Your task to perform on an android device: open app "The Home Depot" (install if not already installed), go to login, and select forgot password Image 0: 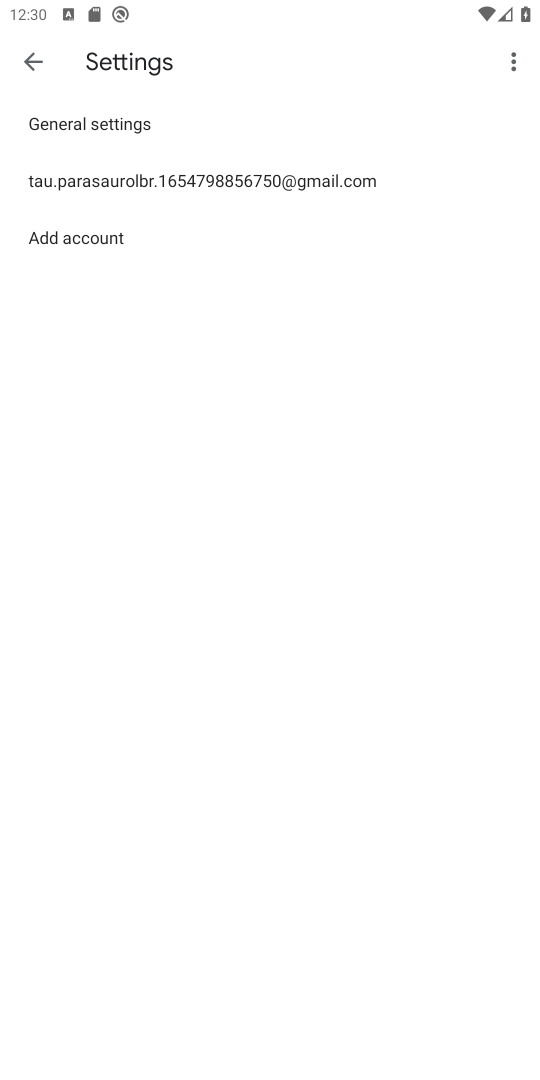
Step 0: press home button
Your task to perform on an android device: open app "The Home Depot" (install if not already installed), go to login, and select forgot password Image 1: 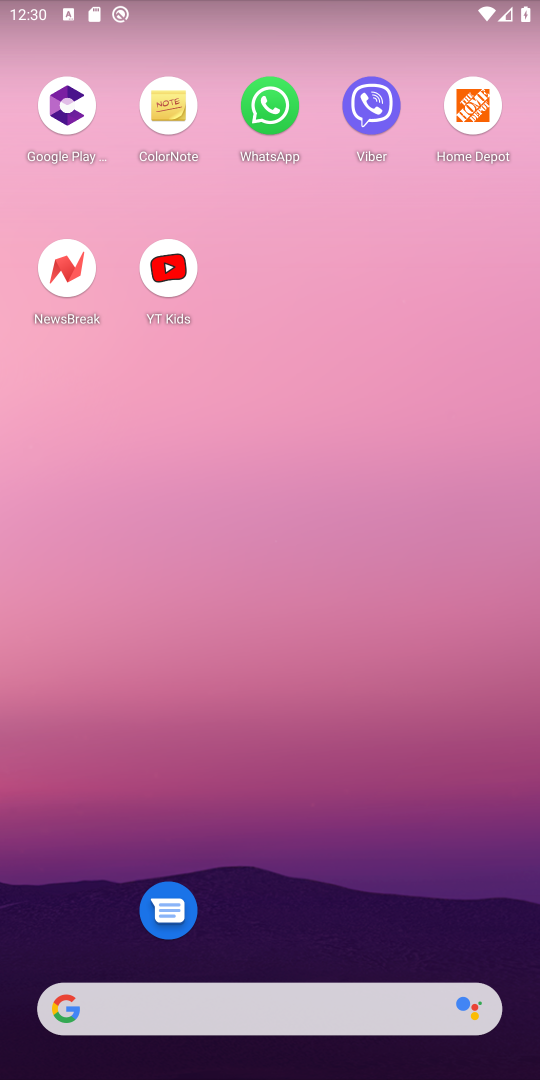
Step 1: drag from (188, 838) to (220, 92)
Your task to perform on an android device: open app "The Home Depot" (install if not already installed), go to login, and select forgot password Image 2: 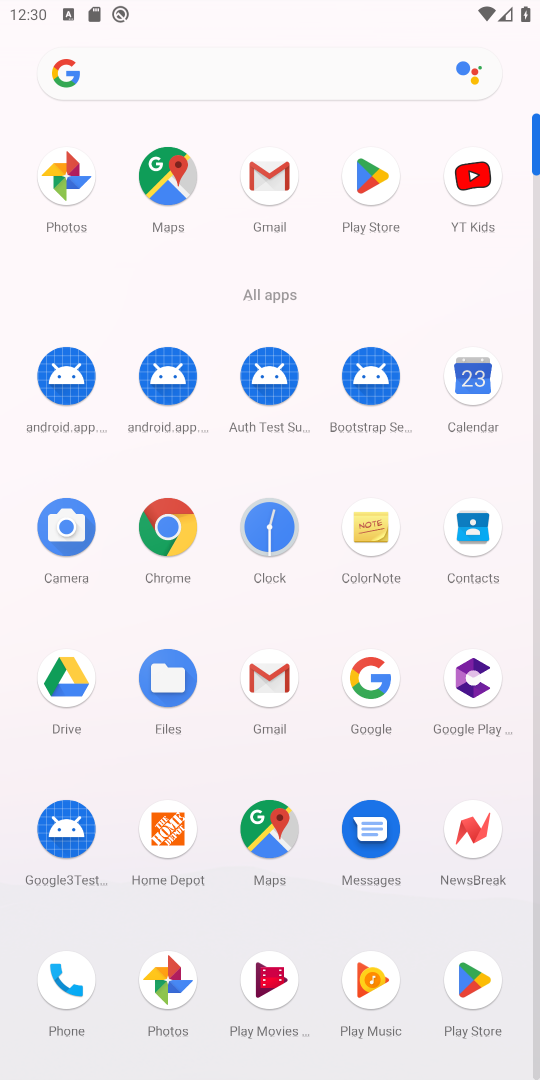
Step 2: click (375, 193)
Your task to perform on an android device: open app "The Home Depot" (install if not already installed), go to login, and select forgot password Image 3: 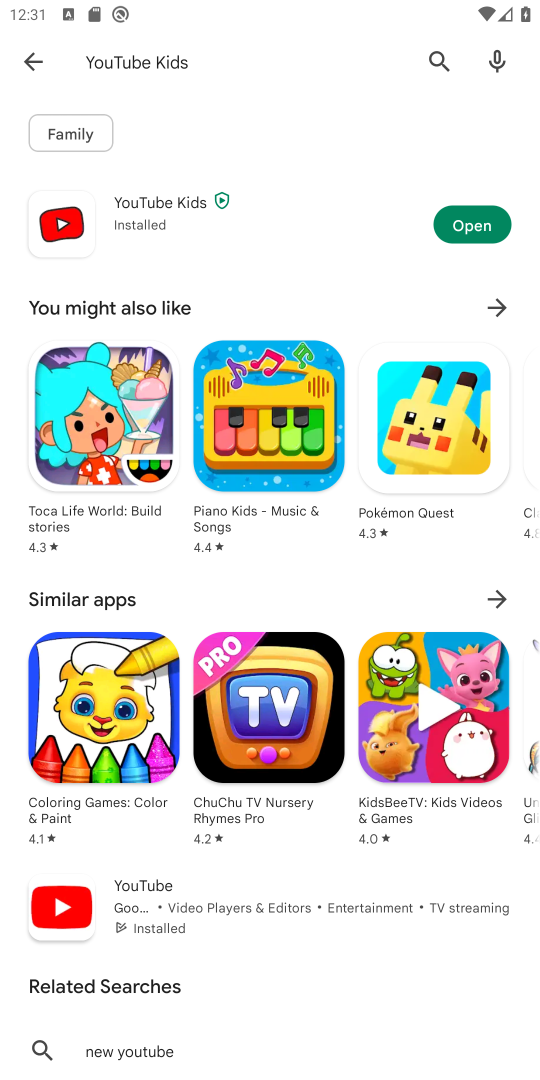
Step 3: press back button
Your task to perform on an android device: open app "The Home Depot" (install if not already installed), go to login, and select forgot password Image 4: 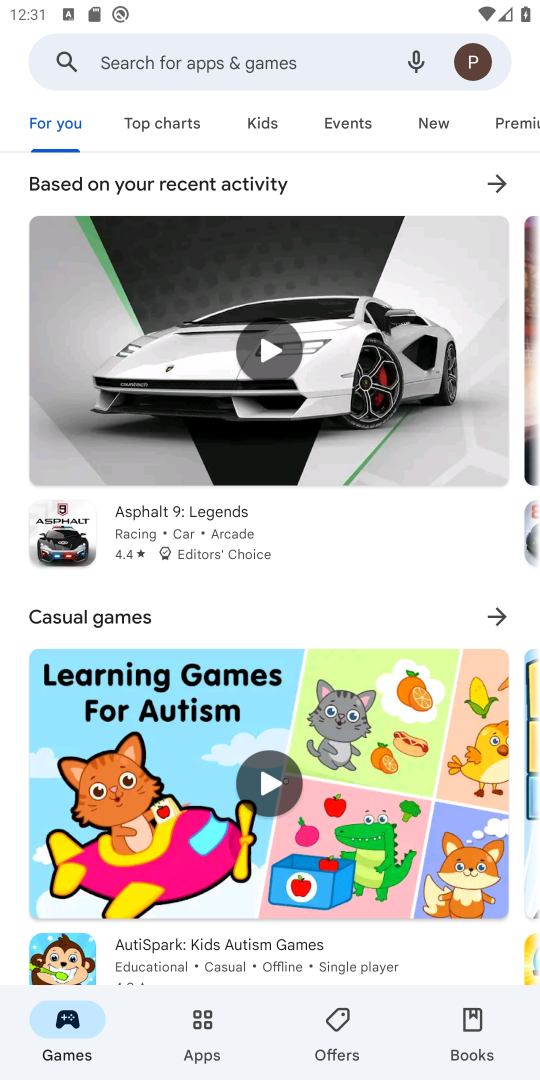
Step 4: click (233, 53)
Your task to perform on an android device: open app "The Home Depot" (install if not already installed), go to login, and select forgot password Image 5: 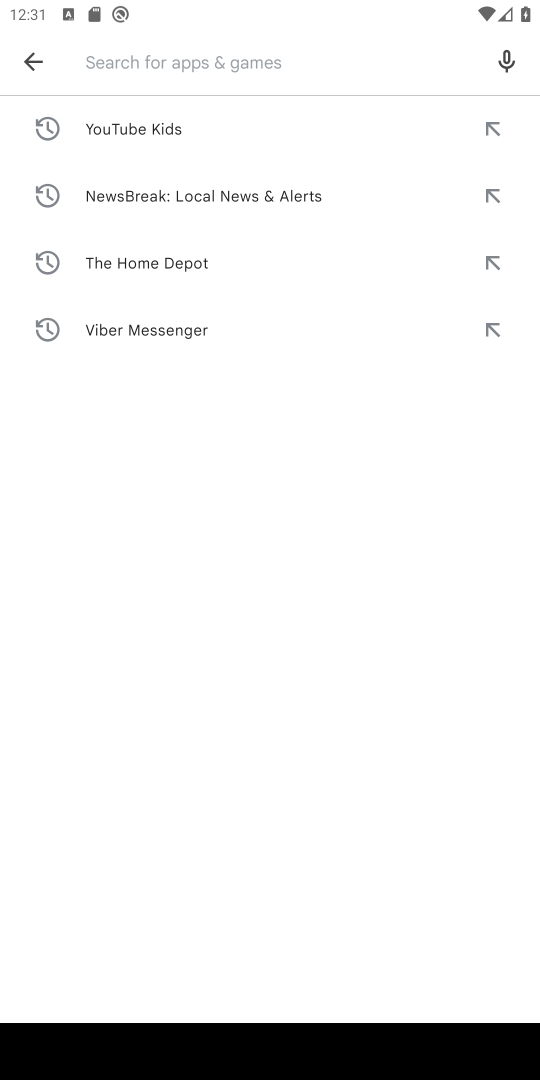
Step 5: press enter
Your task to perform on an android device: open app "The Home Depot" (install if not already installed), go to login, and select forgot password Image 6: 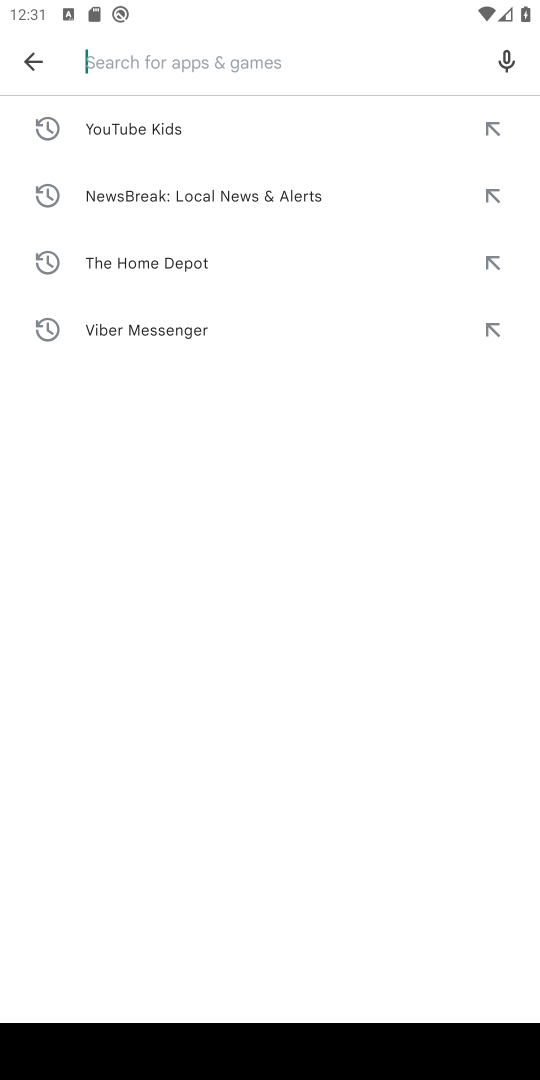
Step 6: type "The Home Depot"
Your task to perform on an android device: open app "The Home Depot" (install if not already installed), go to login, and select forgot password Image 7: 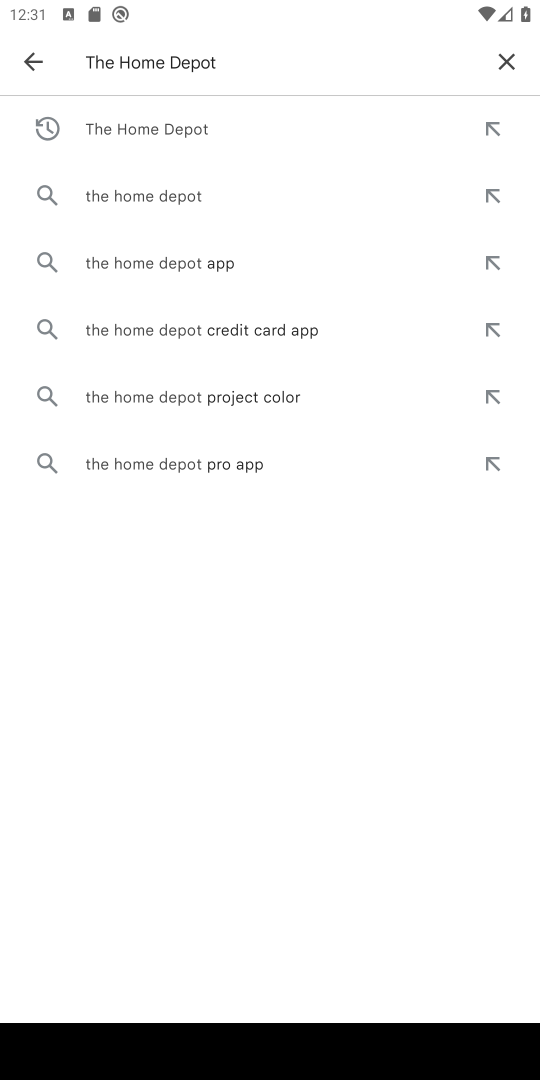
Step 7: click (181, 132)
Your task to perform on an android device: open app "The Home Depot" (install if not already installed), go to login, and select forgot password Image 8: 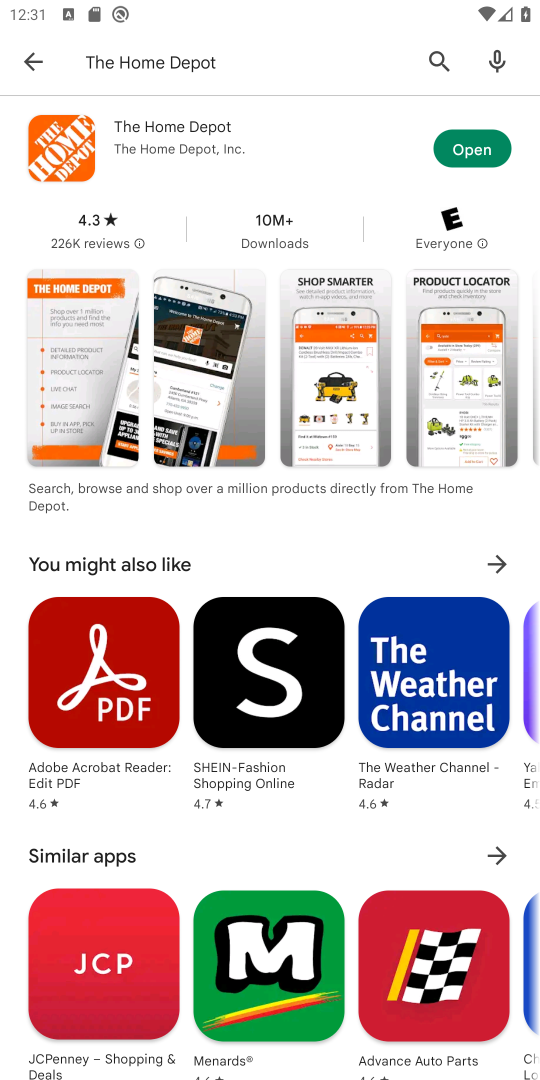
Step 8: click (490, 153)
Your task to perform on an android device: open app "The Home Depot" (install if not already installed), go to login, and select forgot password Image 9: 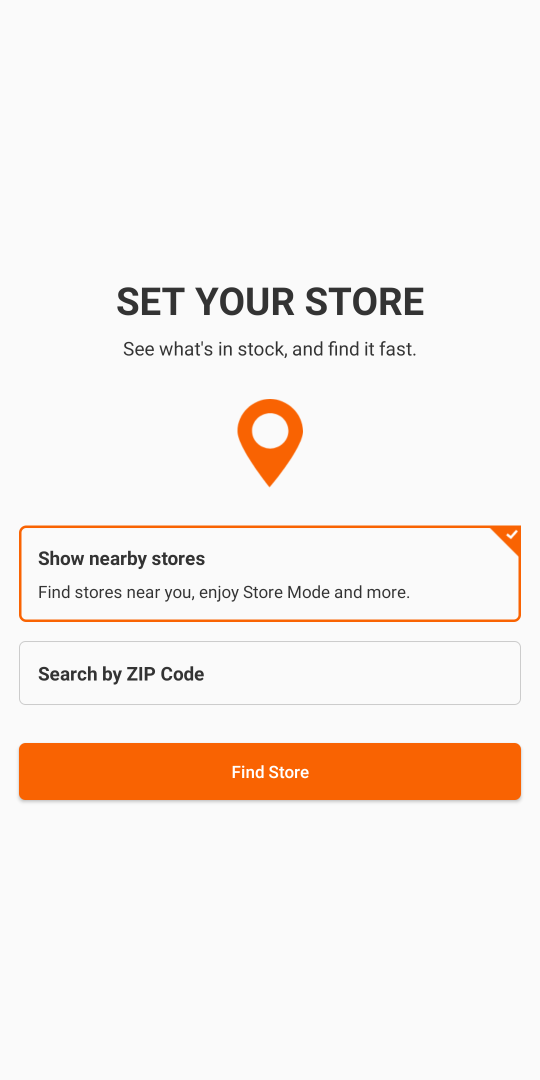
Step 9: click (285, 780)
Your task to perform on an android device: open app "The Home Depot" (install if not already installed), go to login, and select forgot password Image 10: 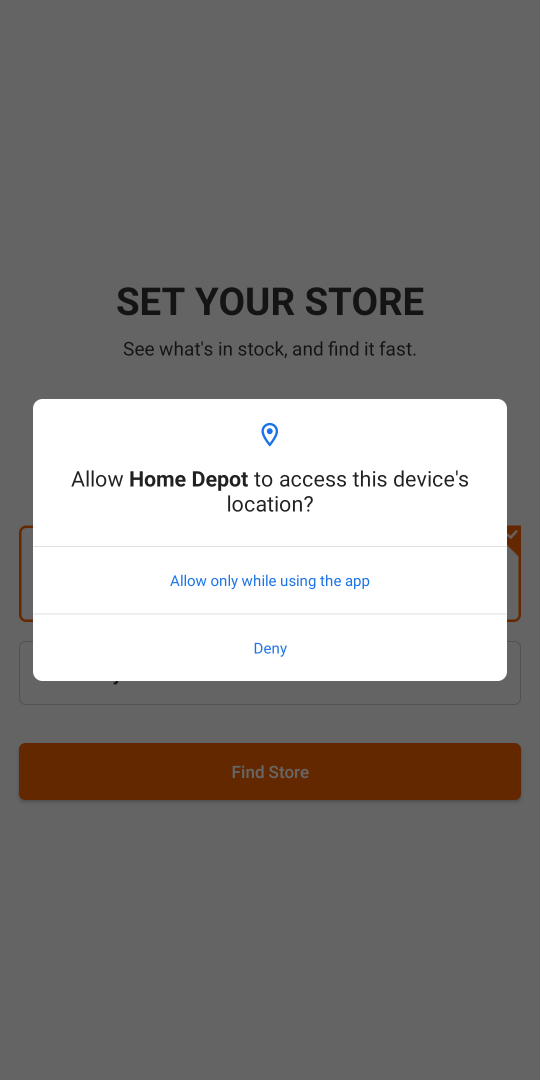
Step 10: click (347, 574)
Your task to perform on an android device: open app "The Home Depot" (install if not already installed), go to login, and select forgot password Image 11: 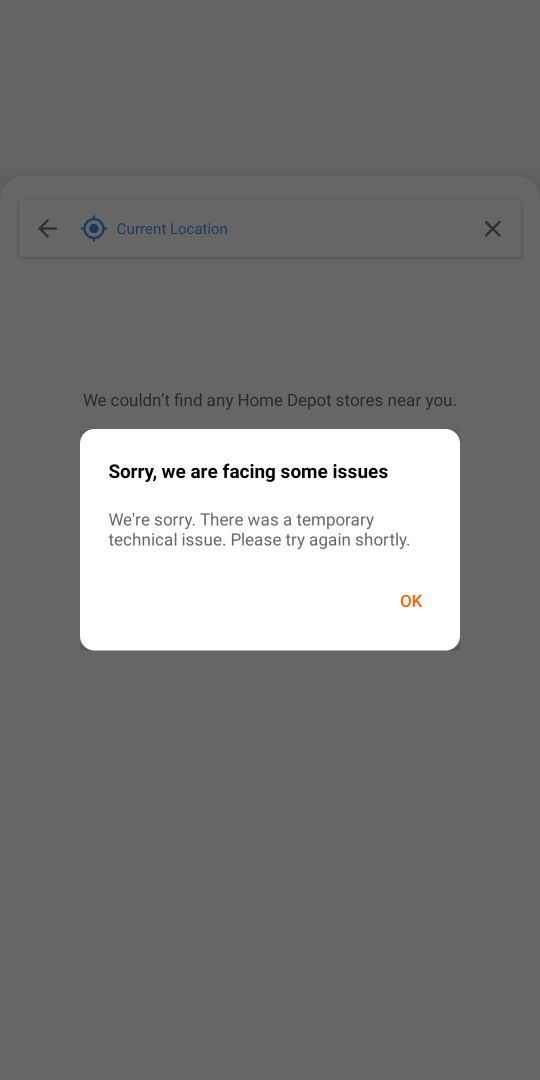
Step 11: click (409, 607)
Your task to perform on an android device: open app "The Home Depot" (install if not already installed), go to login, and select forgot password Image 12: 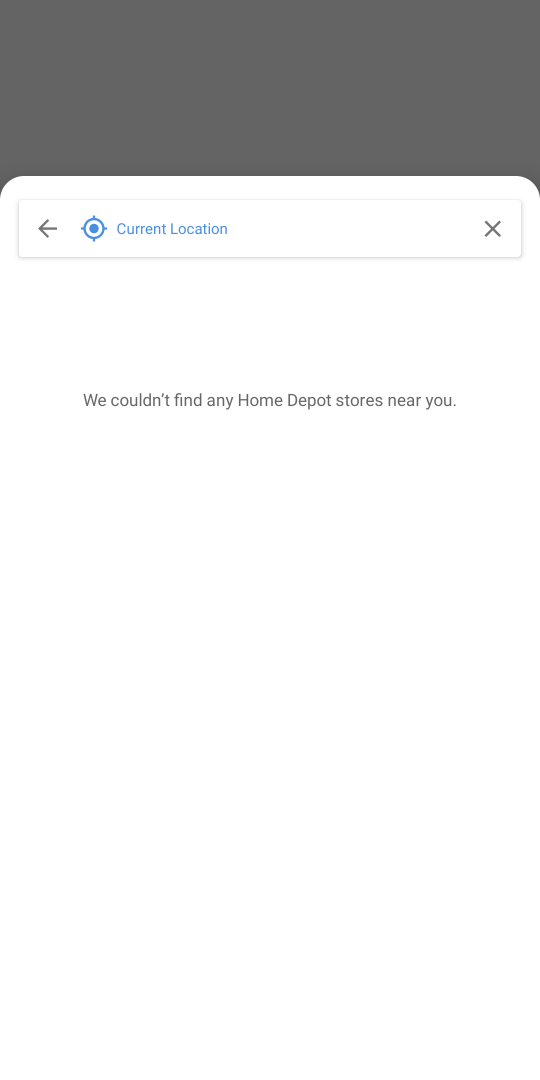
Step 12: click (499, 230)
Your task to perform on an android device: open app "The Home Depot" (install if not already installed), go to login, and select forgot password Image 13: 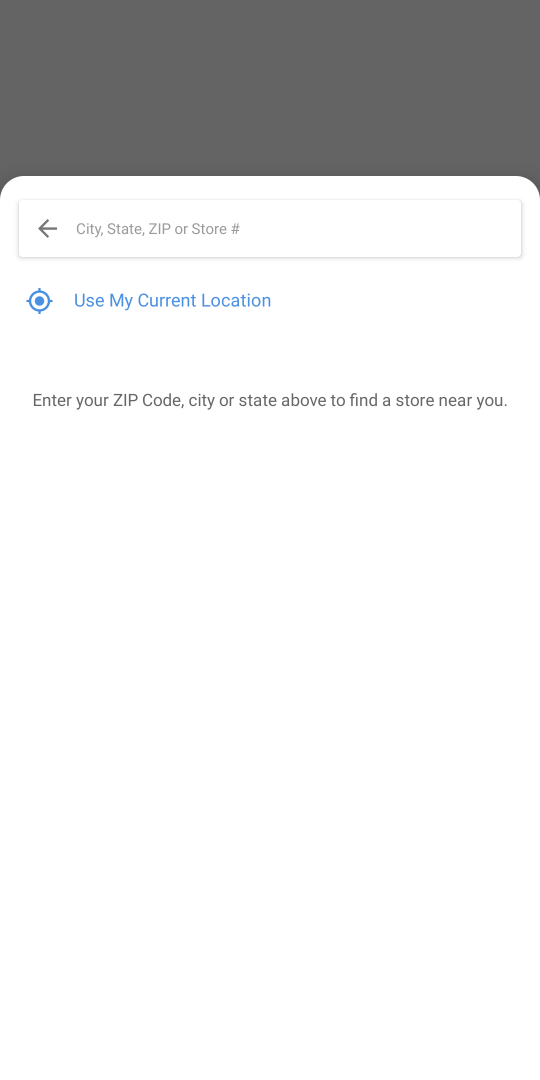
Step 13: click (54, 234)
Your task to perform on an android device: open app "The Home Depot" (install if not already installed), go to login, and select forgot password Image 14: 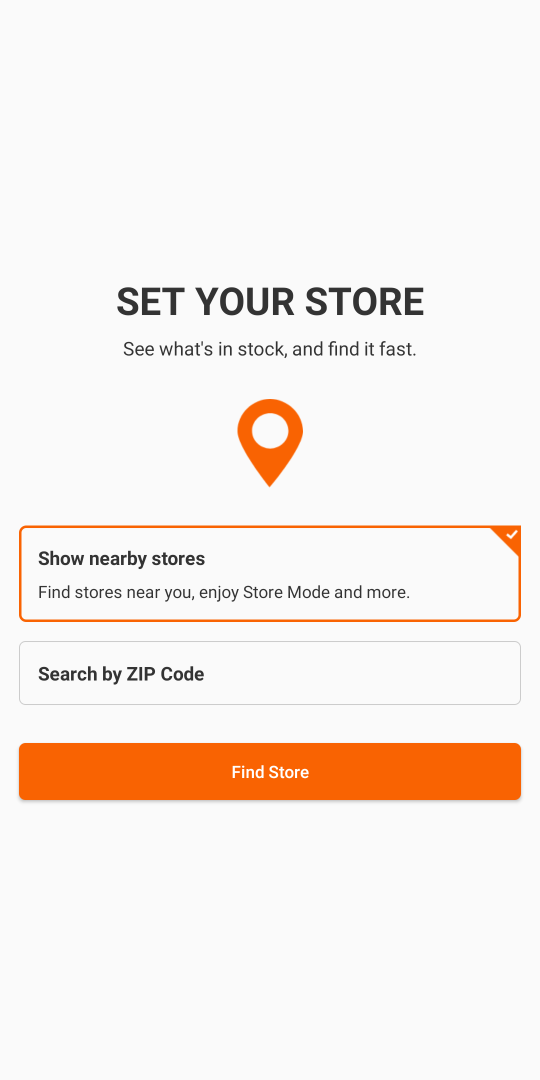
Step 14: click (325, 773)
Your task to perform on an android device: open app "The Home Depot" (install if not already installed), go to login, and select forgot password Image 15: 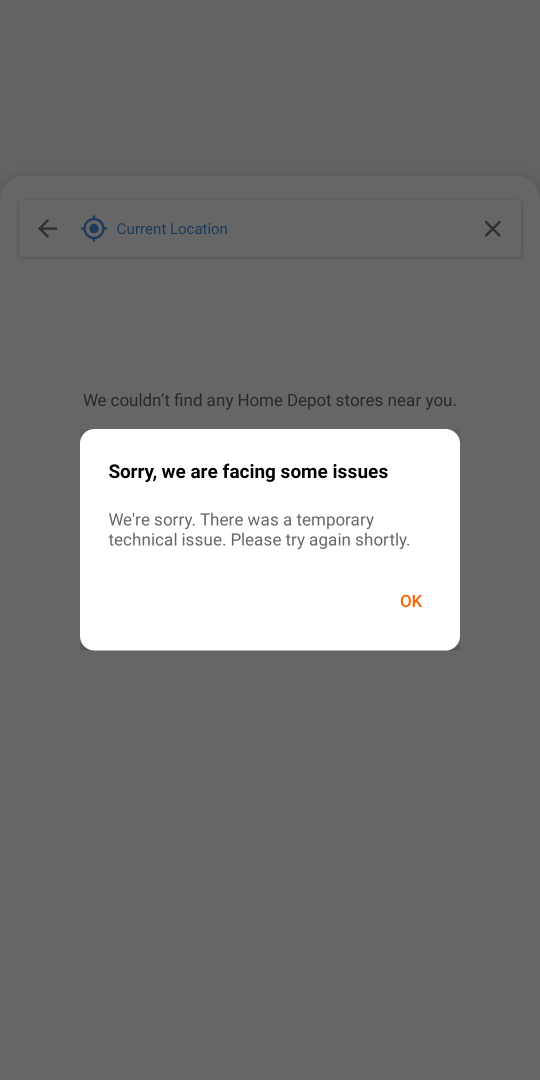
Step 15: click (415, 603)
Your task to perform on an android device: open app "The Home Depot" (install if not already installed), go to login, and select forgot password Image 16: 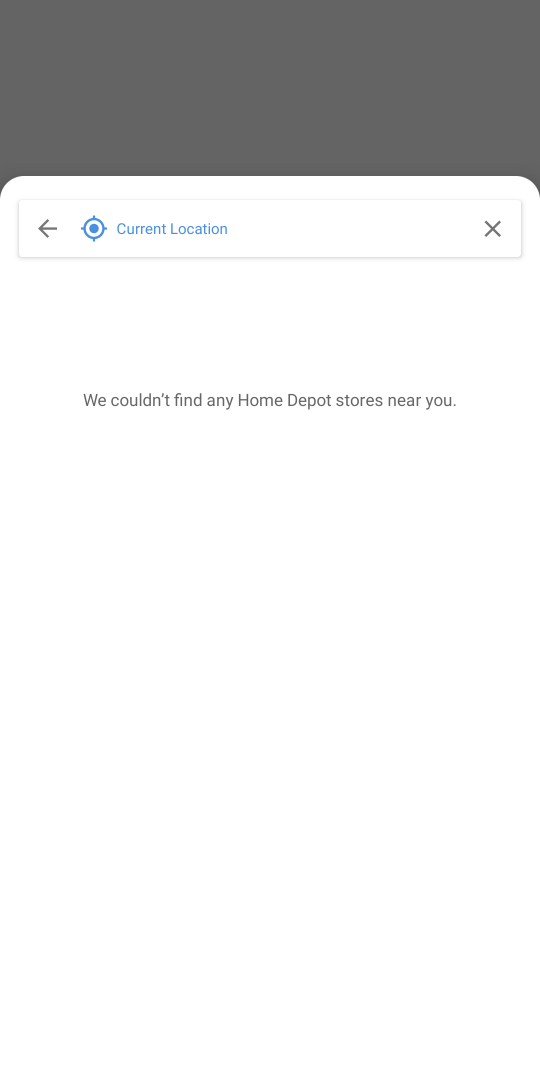
Step 16: task complete